Your task to perform on an android device: Open the Play Movies app and select the watchlist tab. Image 0: 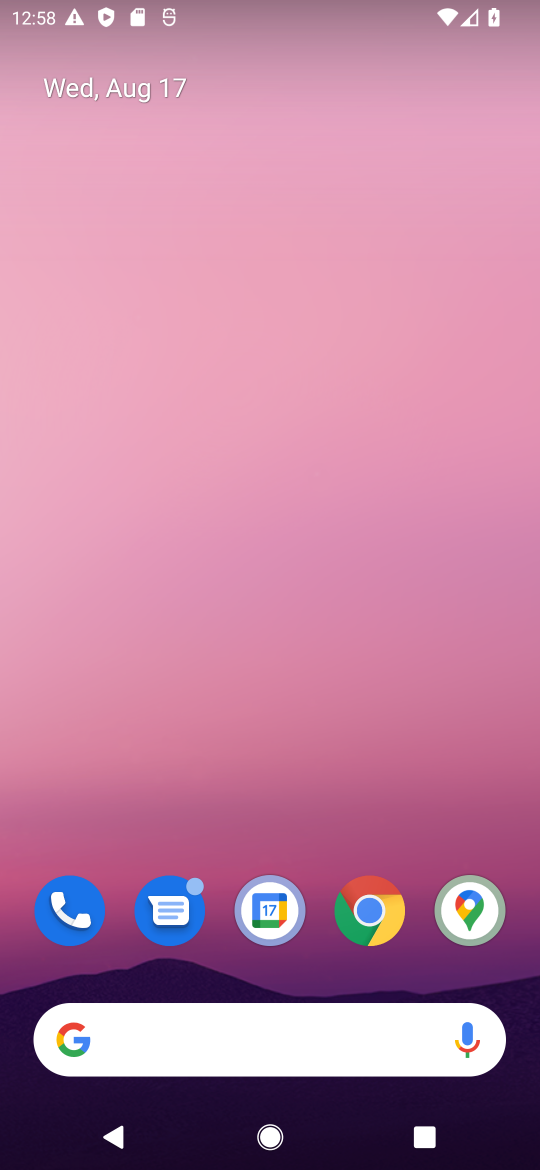
Step 0: drag from (288, 905) to (363, 91)
Your task to perform on an android device: Open the Play Movies app and select the watchlist tab. Image 1: 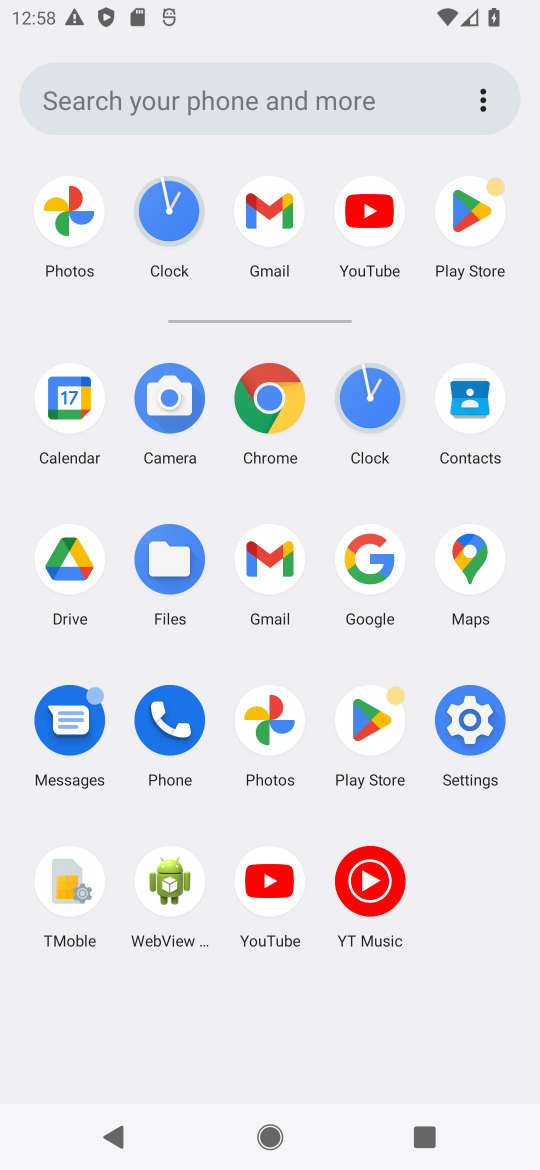
Step 1: task complete